Your task to perform on an android device: check battery use Image 0: 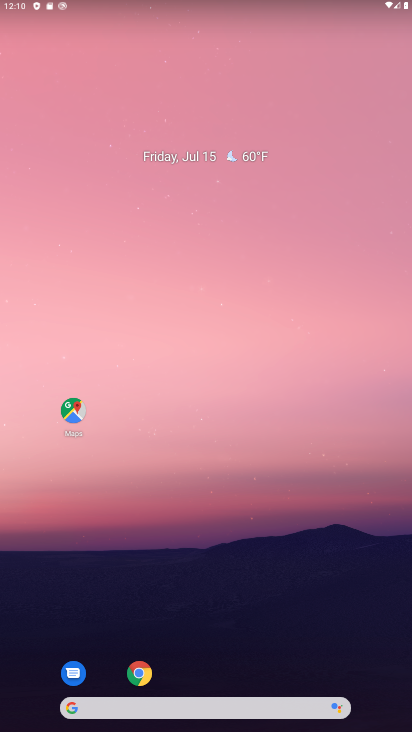
Step 0: drag from (270, 465) to (349, 117)
Your task to perform on an android device: check battery use Image 1: 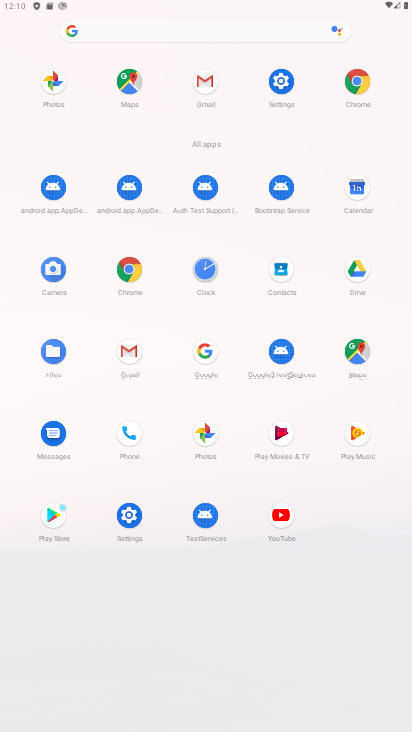
Step 1: click (132, 525)
Your task to perform on an android device: check battery use Image 2: 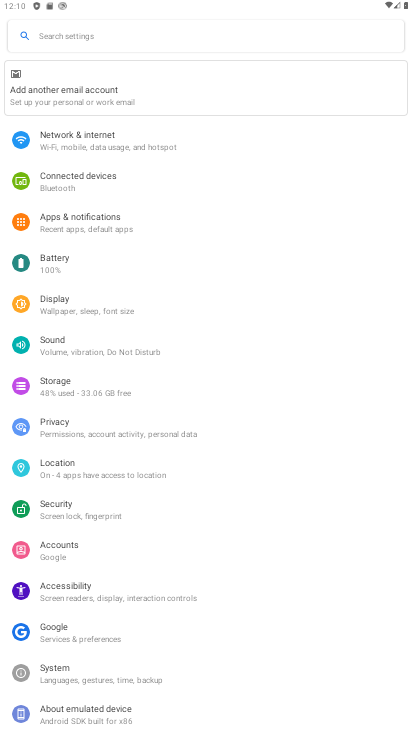
Step 2: click (87, 264)
Your task to perform on an android device: check battery use Image 3: 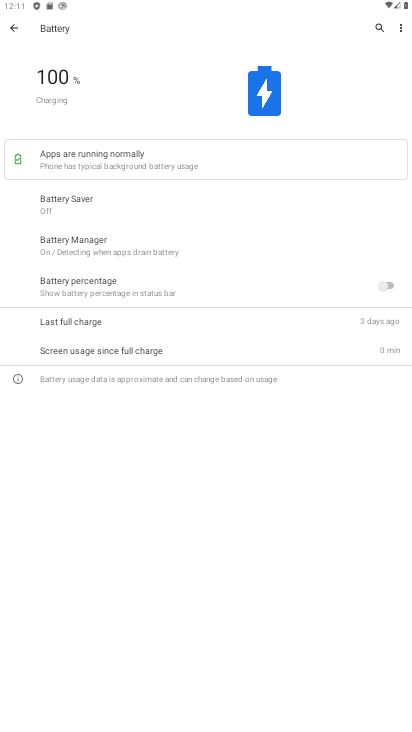
Step 3: click (400, 22)
Your task to perform on an android device: check battery use Image 4: 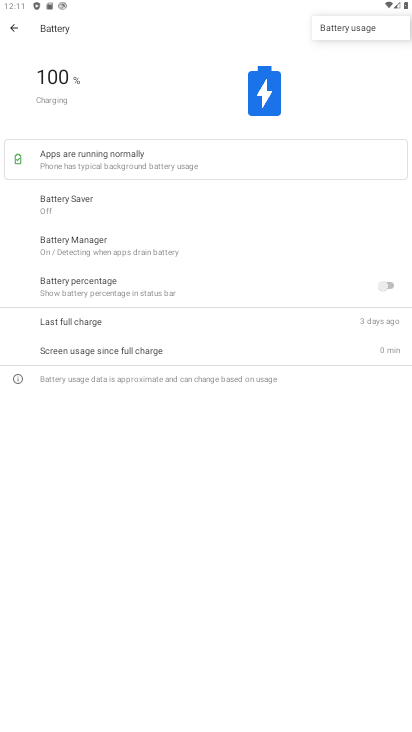
Step 4: click (381, 33)
Your task to perform on an android device: check battery use Image 5: 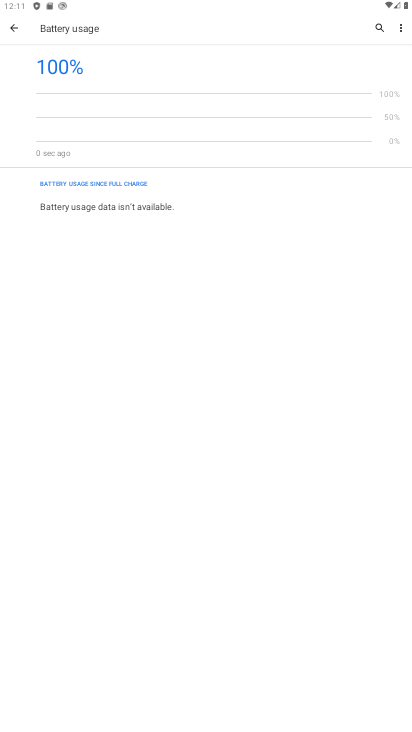
Step 5: task complete